Your task to perform on an android device: Do I have any events this weekend? Image 0: 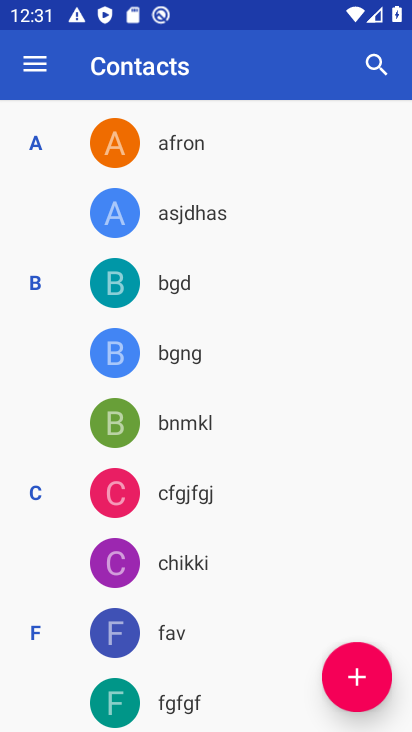
Step 0: press home button
Your task to perform on an android device: Do I have any events this weekend? Image 1: 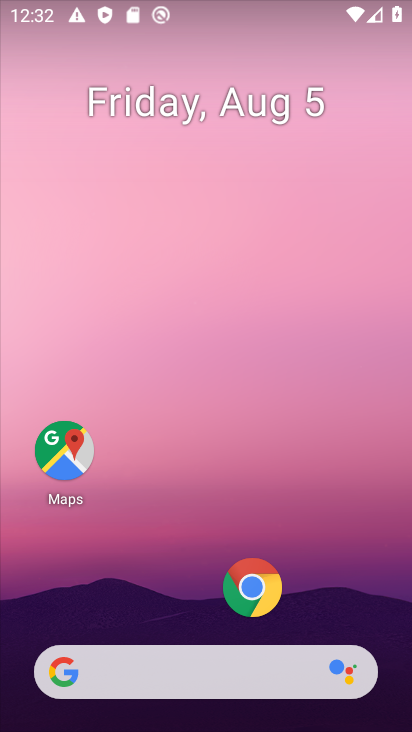
Step 1: drag from (158, 710) to (154, 158)
Your task to perform on an android device: Do I have any events this weekend? Image 2: 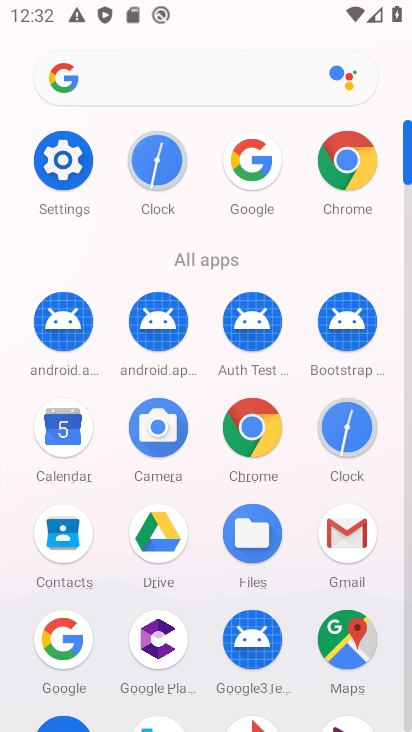
Step 2: click (60, 434)
Your task to perform on an android device: Do I have any events this weekend? Image 3: 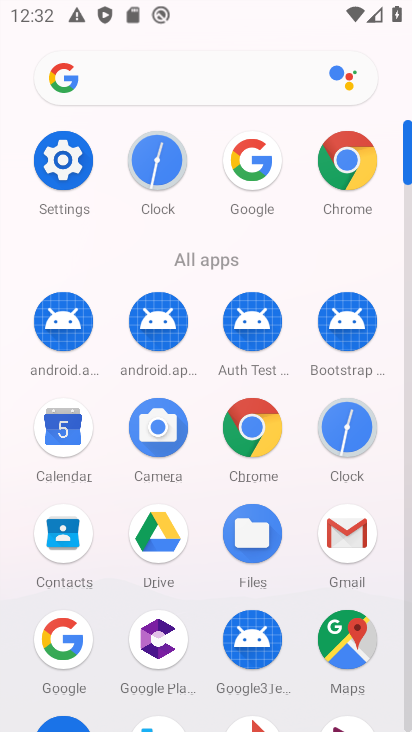
Step 3: click (60, 434)
Your task to perform on an android device: Do I have any events this weekend? Image 4: 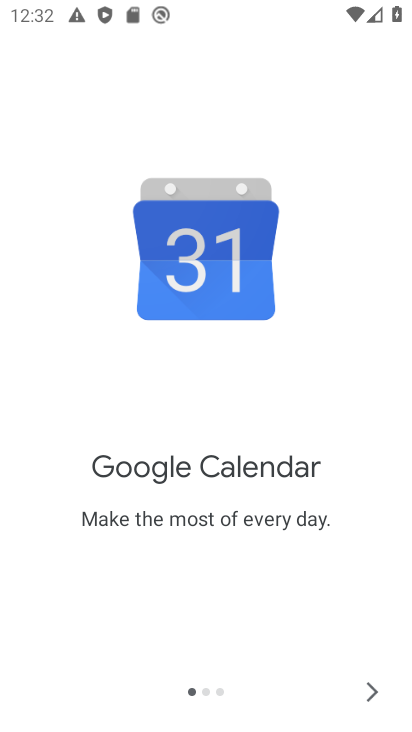
Step 4: click (377, 693)
Your task to perform on an android device: Do I have any events this weekend? Image 5: 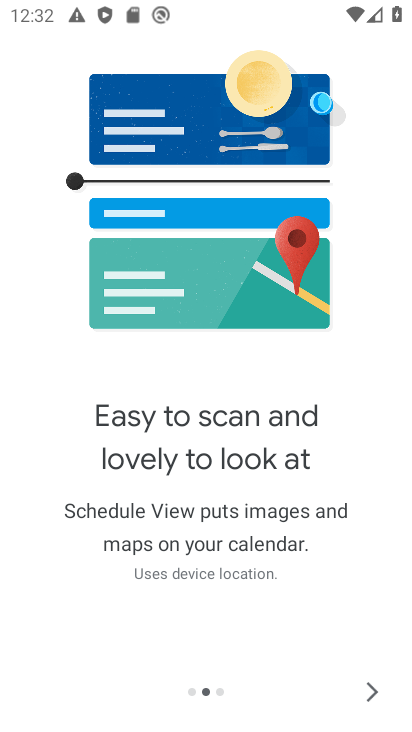
Step 5: click (377, 693)
Your task to perform on an android device: Do I have any events this weekend? Image 6: 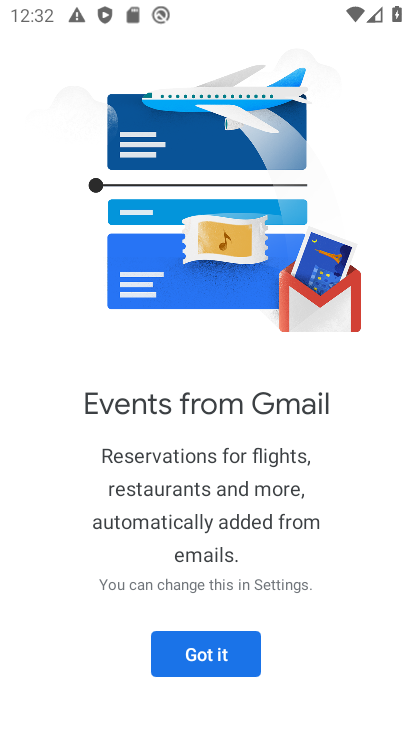
Step 6: click (225, 663)
Your task to perform on an android device: Do I have any events this weekend? Image 7: 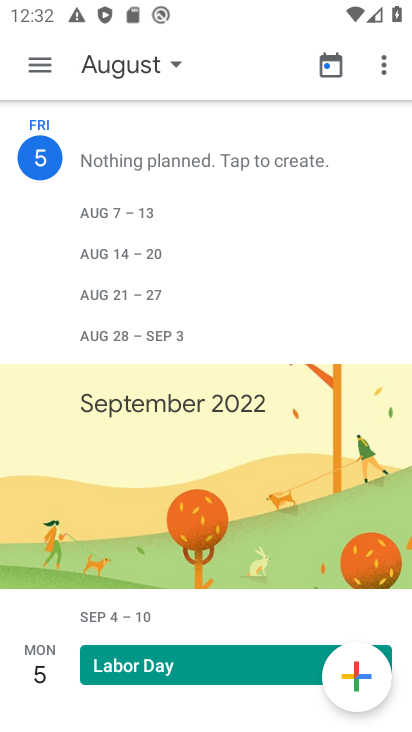
Step 7: click (44, 63)
Your task to perform on an android device: Do I have any events this weekend? Image 8: 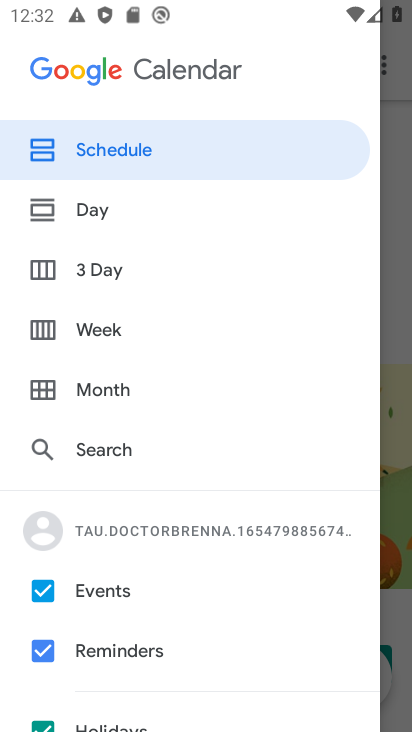
Step 8: click (151, 159)
Your task to perform on an android device: Do I have any events this weekend? Image 9: 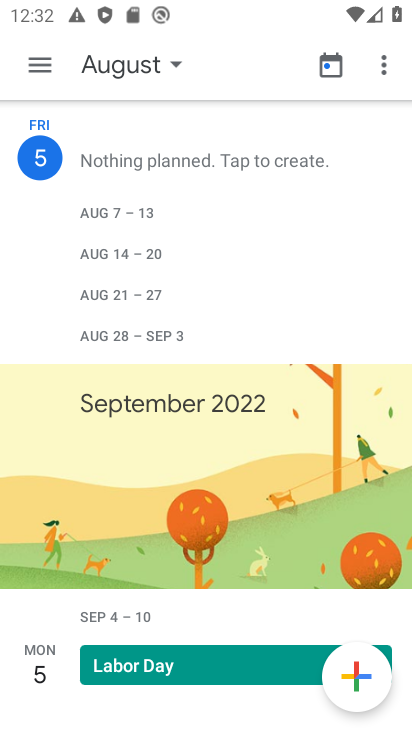
Step 9: task complete